Your task to perform on an android device: change the clock display to digital Image 0: 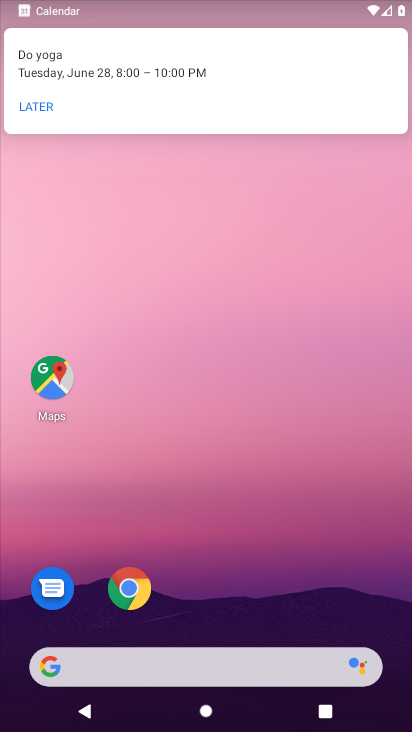
Step 0: drag from (170, 647) to (299, 97)
Your task to perform on an android device: change the clock display to digital Image 1: 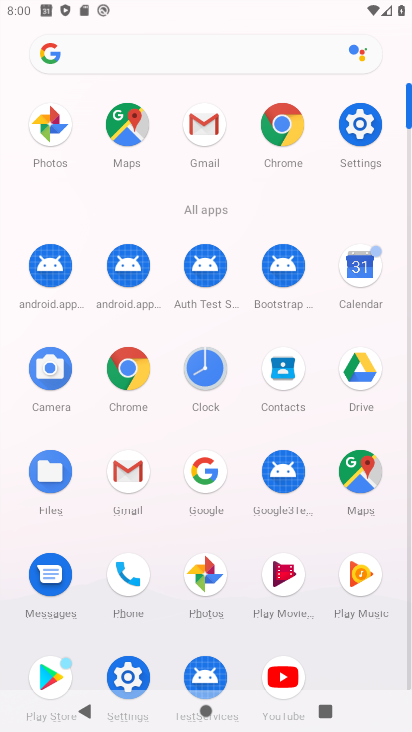
Step 1: click (206, 359)
Your task to perform on an android device: change the clock display to digital Image 2: 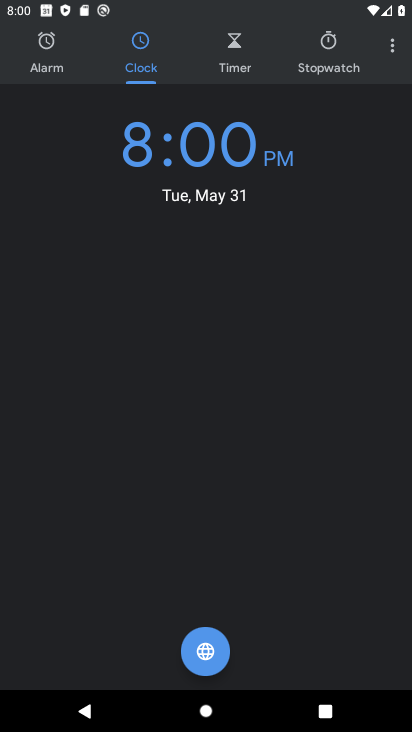
Step 2: click (385, 42)
Your task to perform on an android device: change the clock display to digital Image 3: 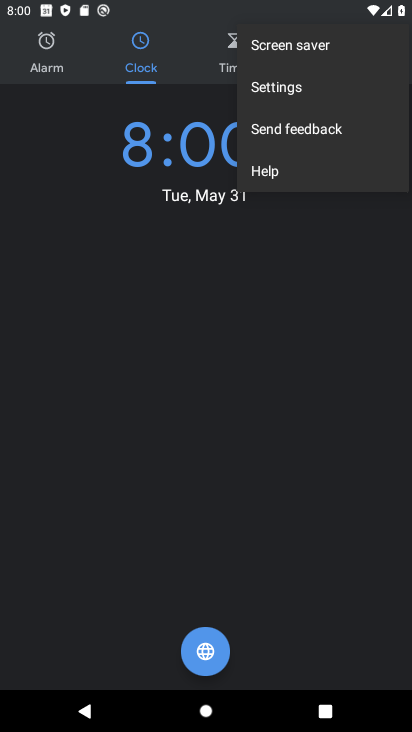
Step 3: click (265, 88)
Your task to perform on an android device: change the clock display to digital Image 4: 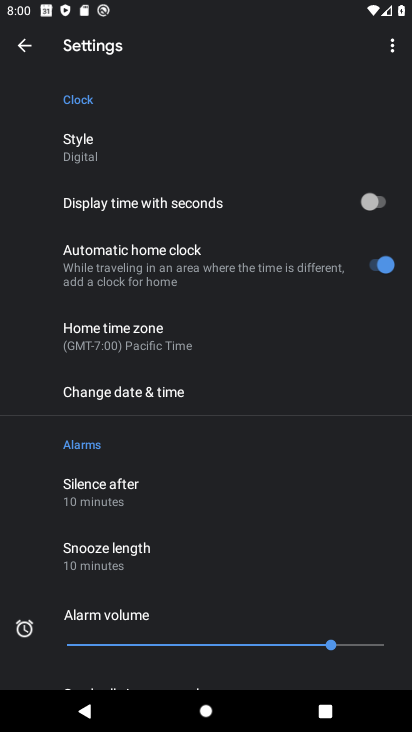
Step 4: task complete